Your task to perform on an android device: Open eBay Image 0: 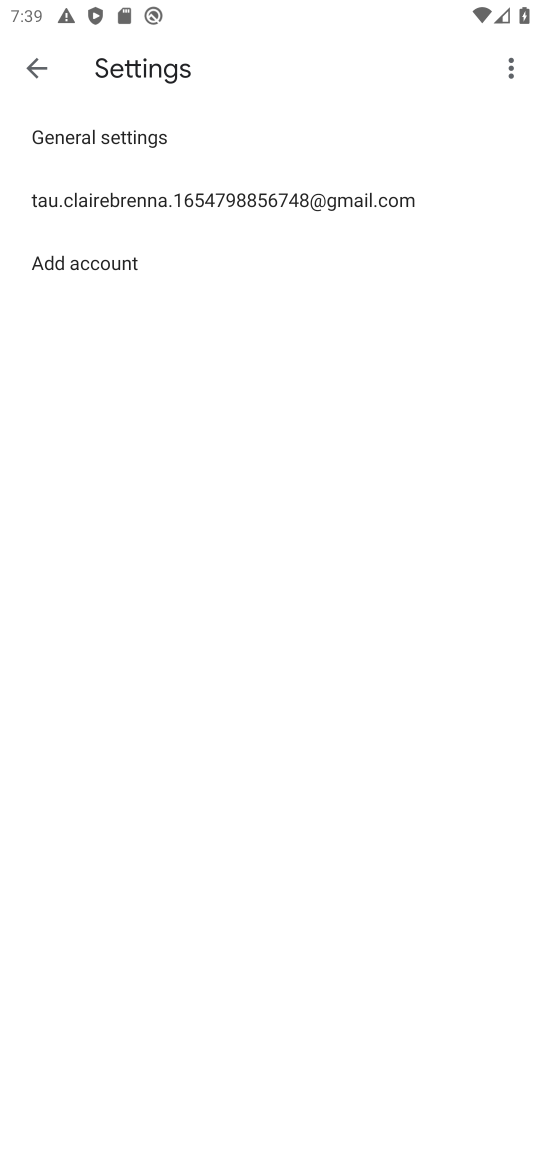
Step 0: press home button
Your task to perform on an android device: Open eBay Image 1: 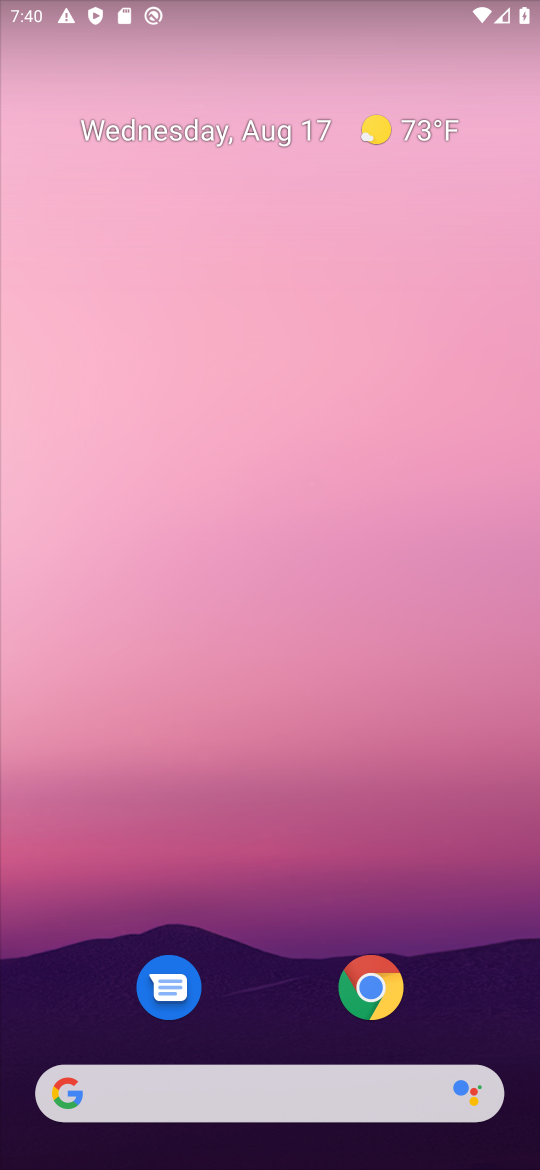
Step 1: drag from (484, 970) to (196, 22)
Your task to perform on an android device: Open eBay Image 2: 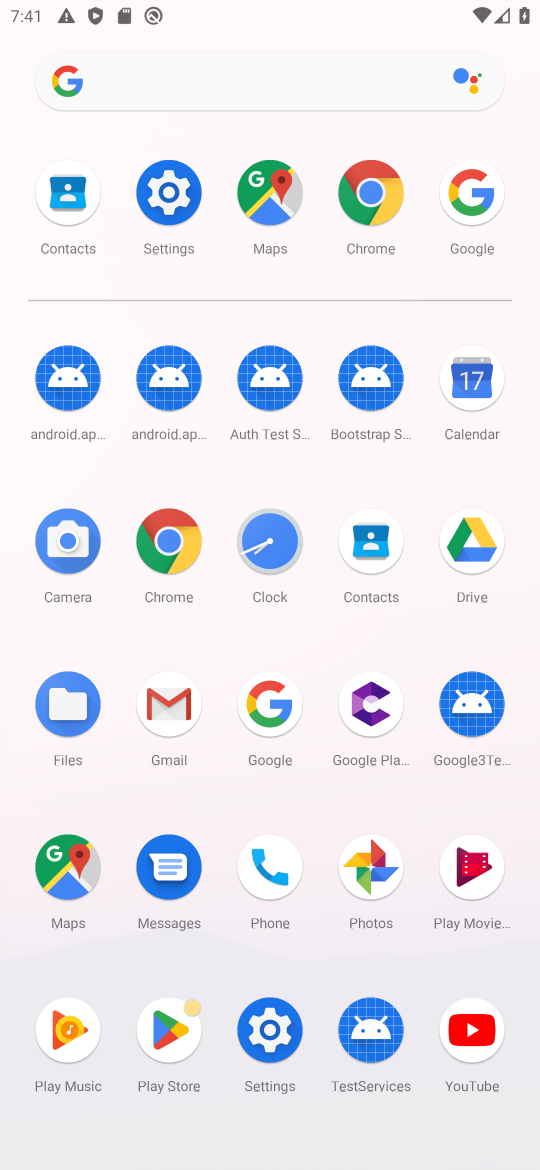
Step 2: click (275, 768)
Your task to perform on an android device: Open eBay Image 3: 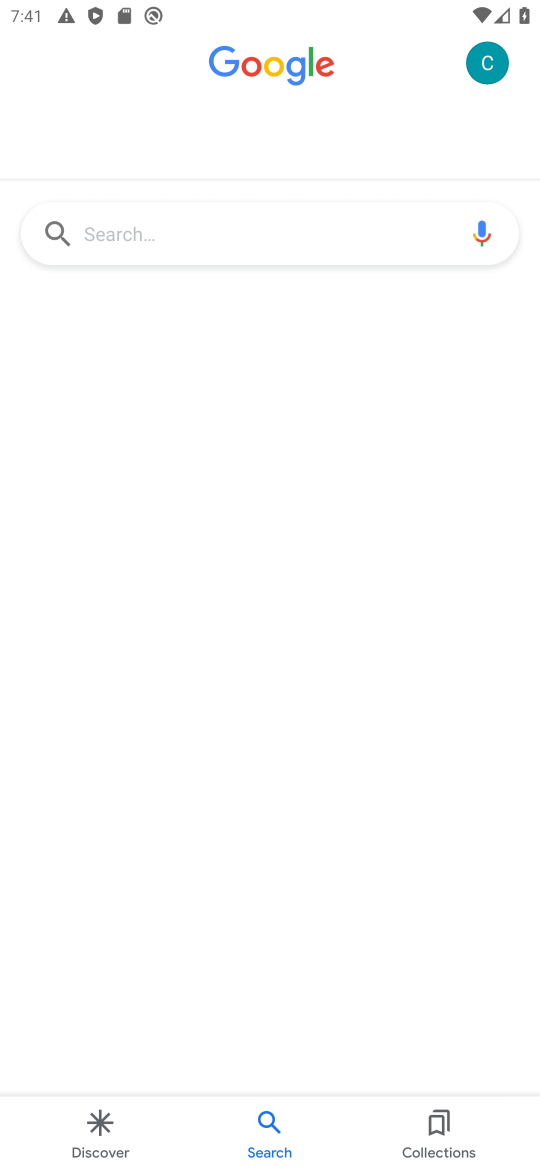
Step 3: click (171, 242)
Your task to perform on an android device: Open eBay Image 4: 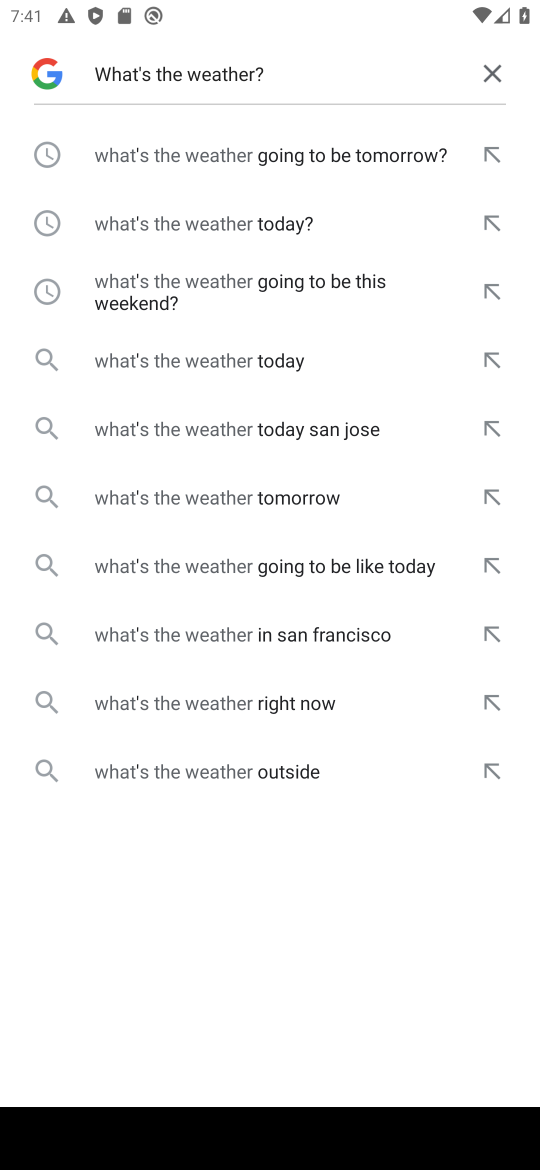
Step 4: click (495, 78)
Your task to perform on an android device: Open eBay Image 5: 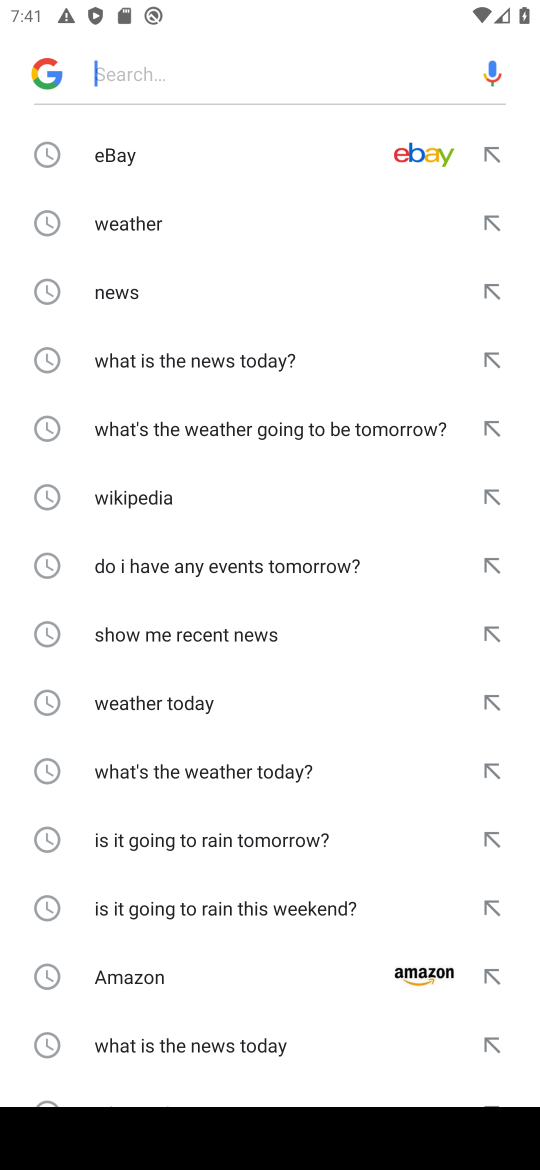
Step 5: click (141, 156)
Your task to perform on an android device: Open eBay Image 6: 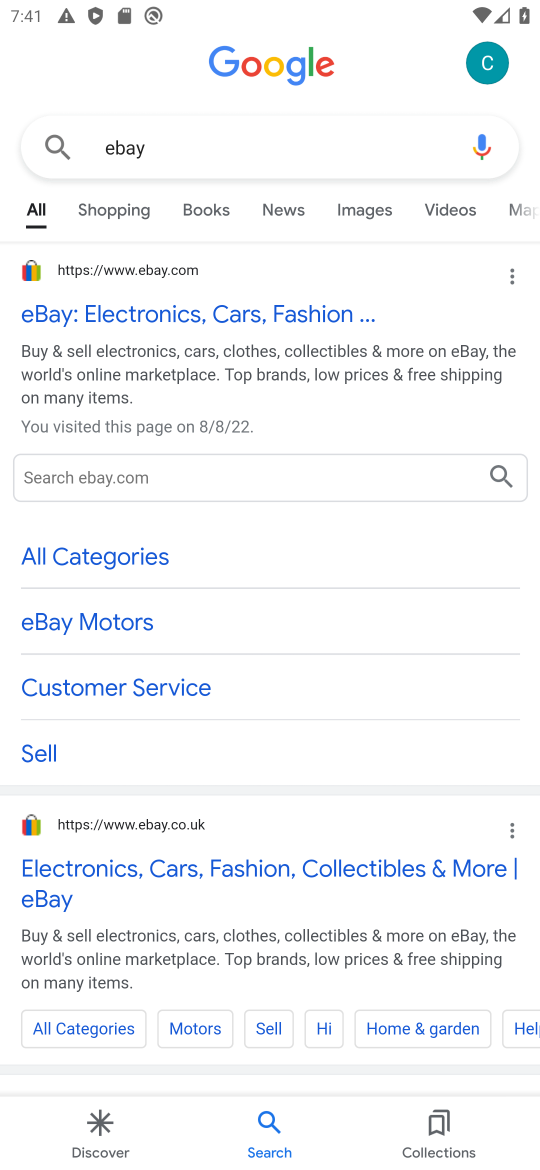
Step 6: task complete